Your task to perform on an android device: create a new album in the google photos Image 0: 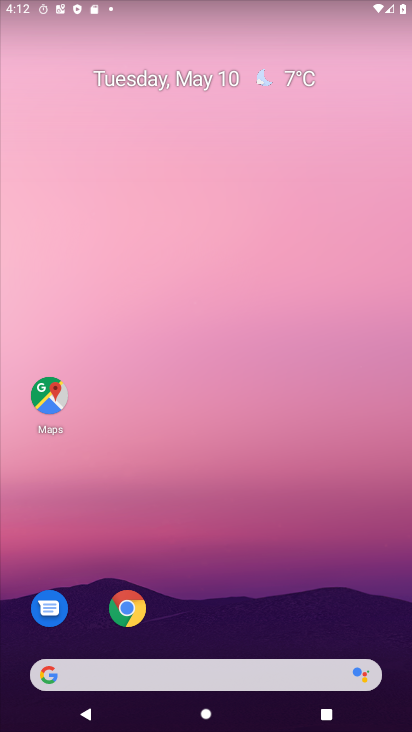
Step 0: drag from (359, 639) to (324, 3)
Your task to perform on an android device: create a new album in the google photos Image 1: 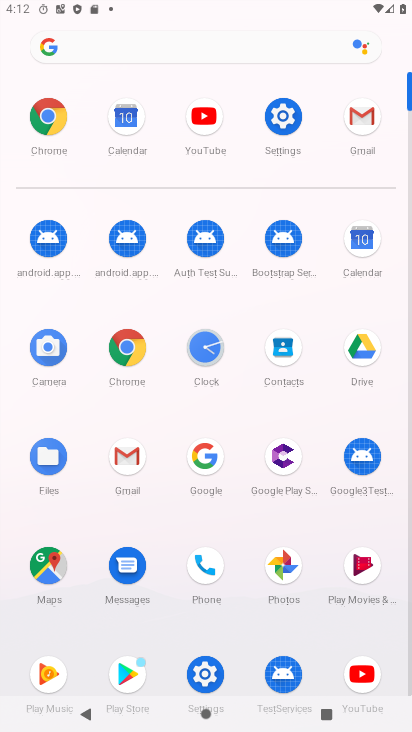
Step 1: click (282, 559)
Your task to perform on an android device: create a new album in the google photos Image 2: 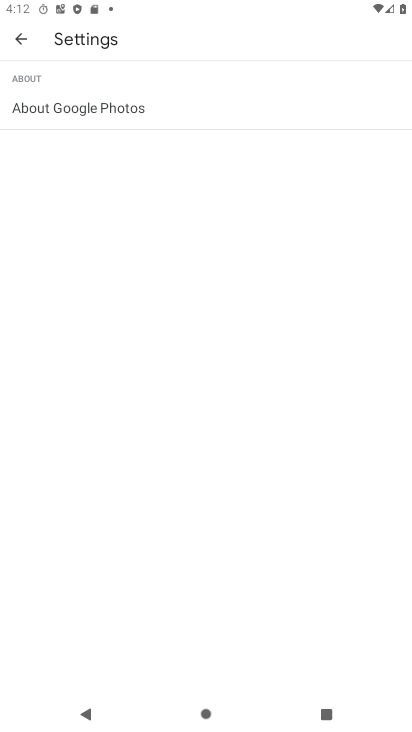
Step 2: click (22, 46)
Your task to perform on an android device: create a new album in the google photos Image 3: 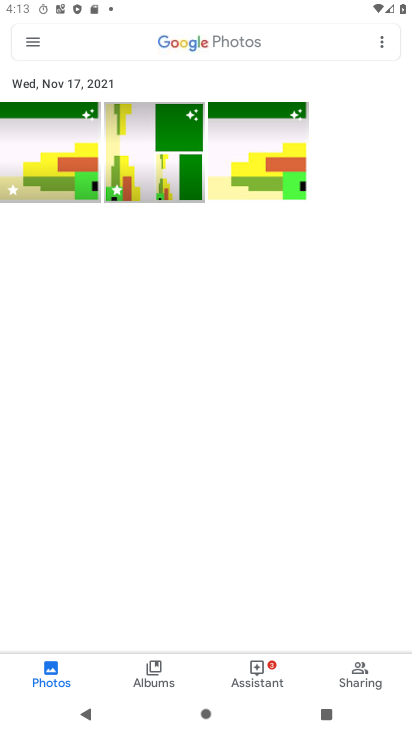
Step 3: click (48, 154)
Your task to perform on an android device: create a new album in the google photos Image 4: 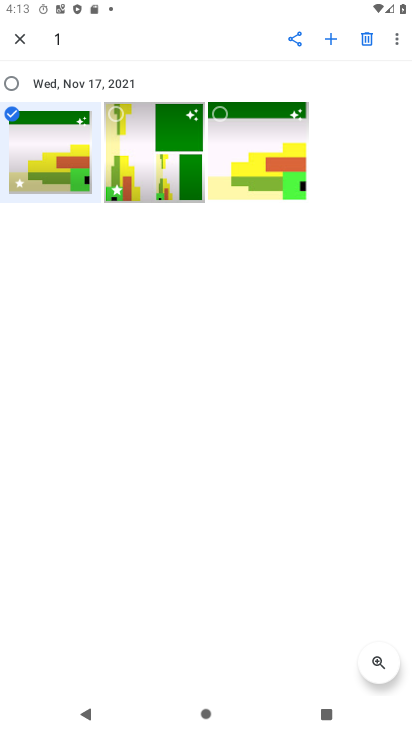
Step 4: click (331, 40)
Your task to perform on an android device: create a new album in the google photos Image 5: 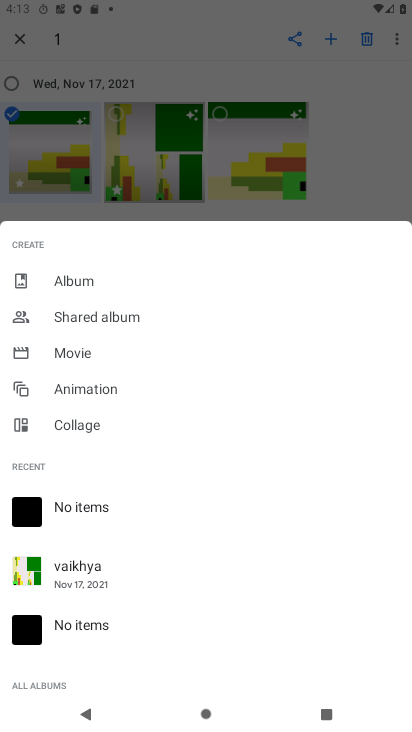
Step 5: click (76, 286)
Your task to perform on an android device: create a new album in the google photos Image 6: 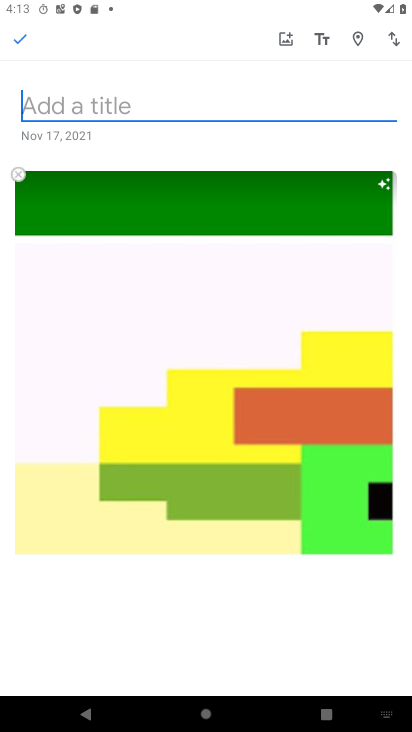
Step 6: click (55, 111)
Your task to perform on an android device: create a new album in the google photos Image 7: 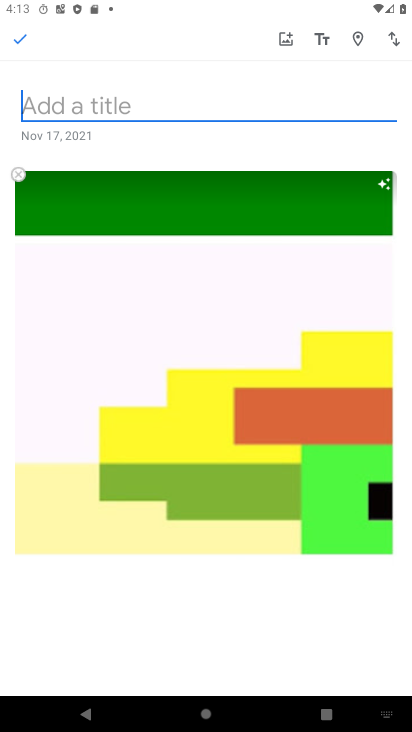
Step 7: click (44, 118)
Your task to perform on an android device: create a new album in the google photos Image 8: 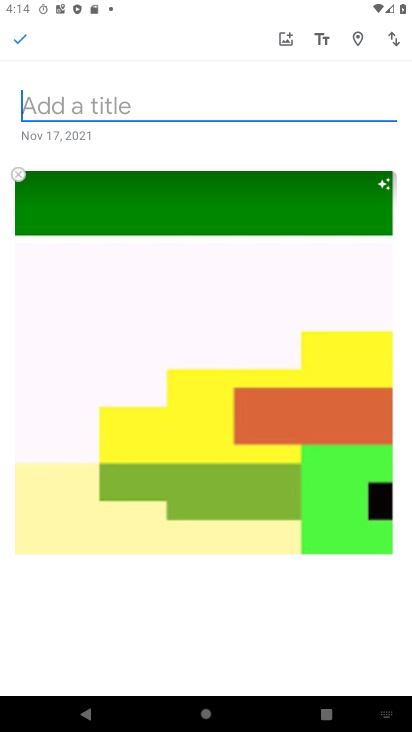
Step 8: type "new 1"
Your task to perform on an android device: create a new album in the google photos Image 9: 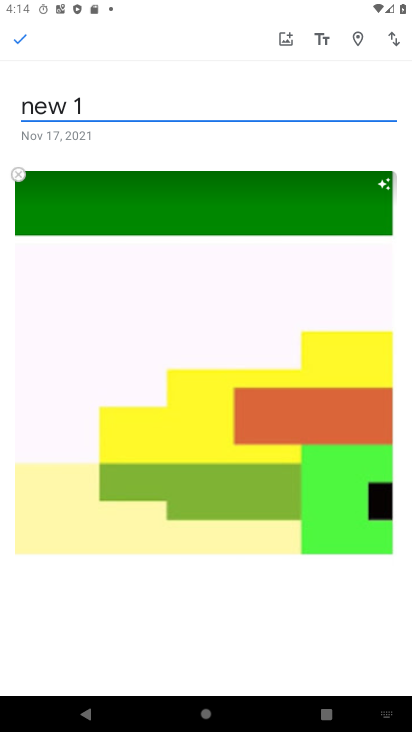
Step 9: click (11, 41)
Your task to perform on an android device: create a new album in the google photos Image 10: 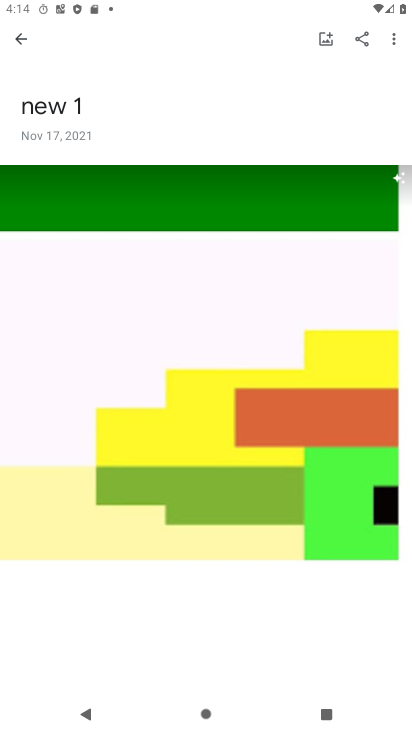
Step 10: task complete